Your task to perform on an android device: turn off javascript in the chrome app Image 0: 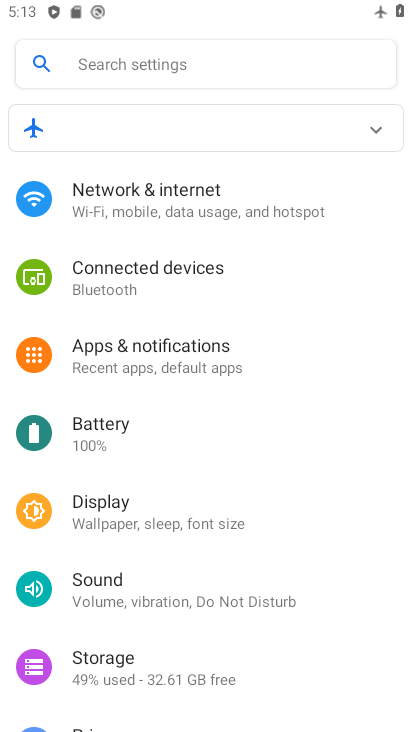
Step 0: press home button
Your task to perform on an android device: turn off javascript in the chrome app Image 1: 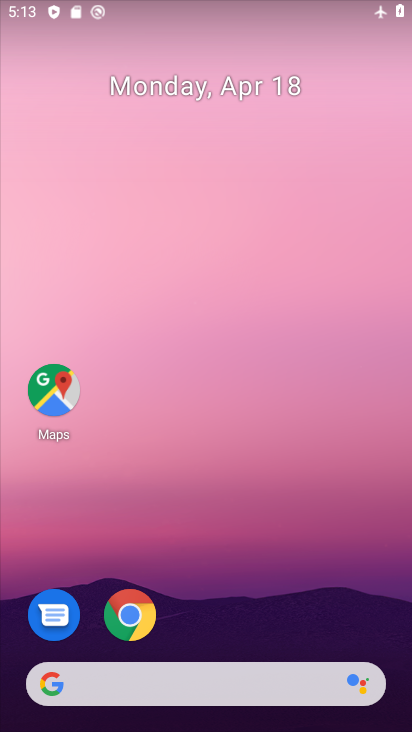
Step 1: click (124, 622)
Your task to perform on an android device: turn off javascript in the chrome app Image 2: 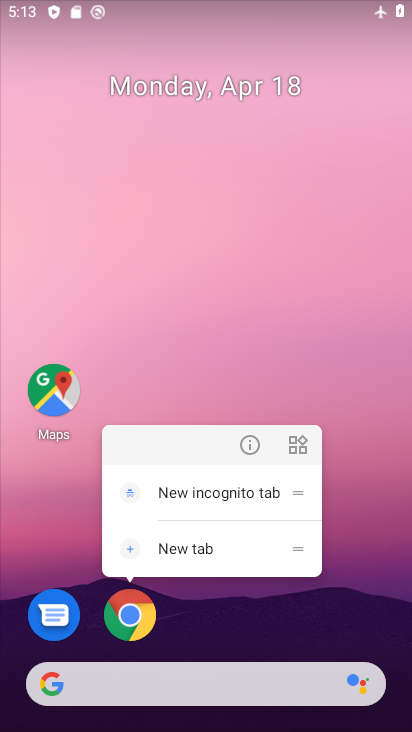
Step 2: click (391, 581)
Your task to perform on an android device: turn off javascript in the chrome app Image 3: 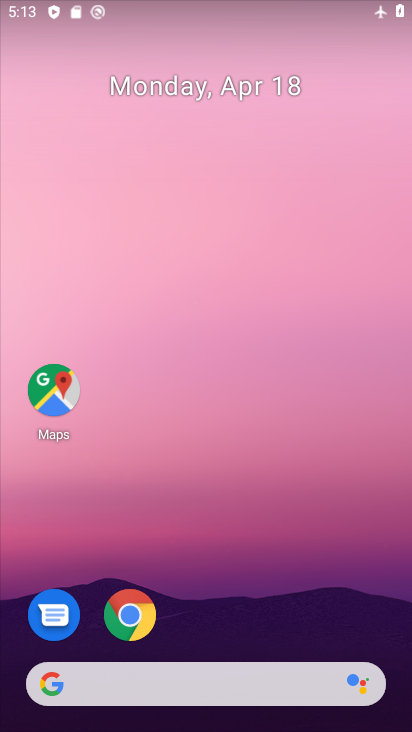
Step 3: drag from (196, 613) to (158, 210)
Your task to perform on an android device: turn off javascript in the chrome app Image 4: 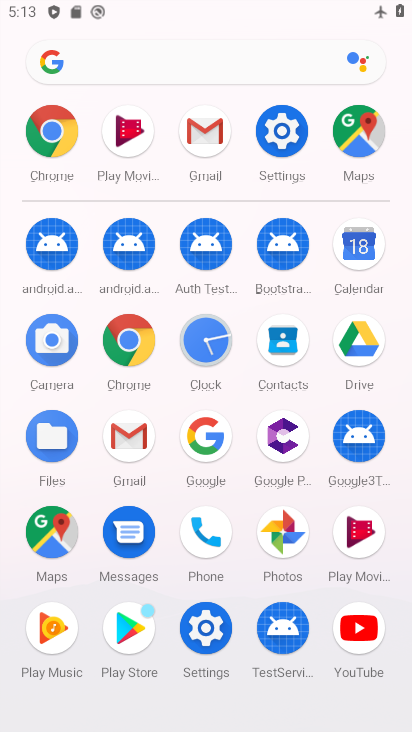
Step 4: click (24, 127)
Your task to perform on an android device: turn off javascript in the chrome app Image 5: 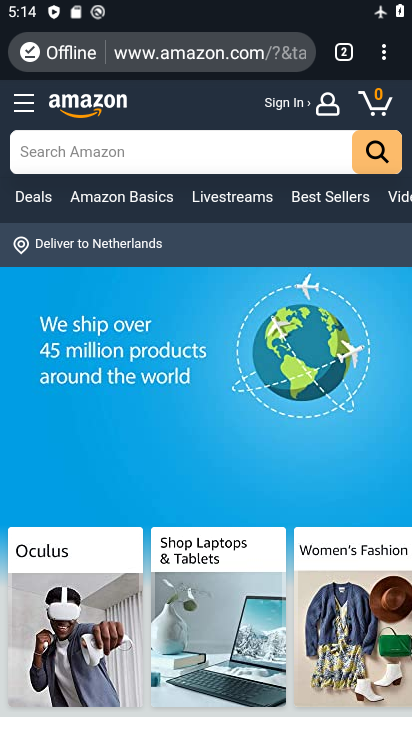
Step 5: drag from (380, 48) to (234, 637)
Your task to perform on an android device: turn off javascript in the chrome app Image 6: 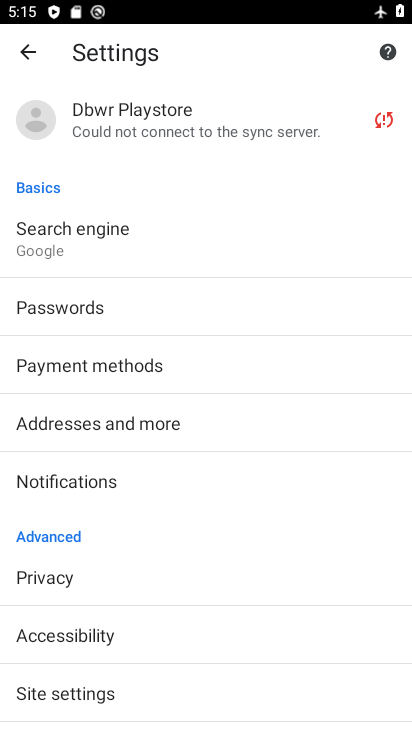
Step 6: click (39, 700)
Your task to perform on an android device: turn off javascript in the chrome app Image 7: 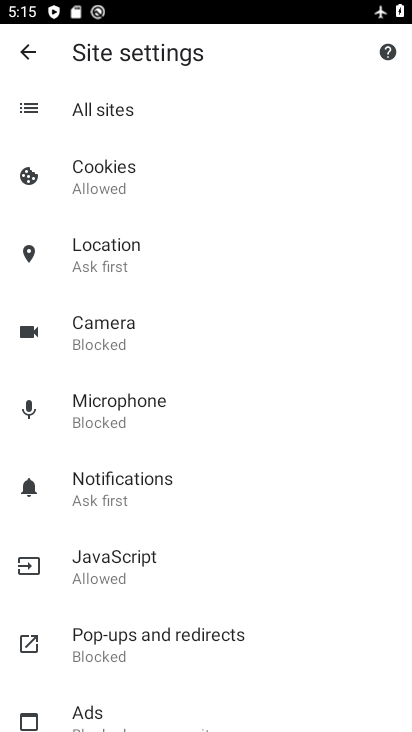
Step 7: click (165, 561)
Your task to perform on an android device: turn off javascript in the chrome app Image 8: 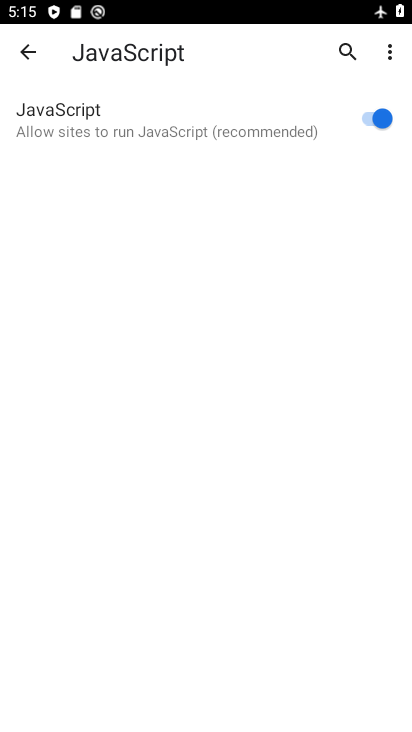
Step 8: click (390, 108)
Your task to perform on an android device: turn off javascript in the chrome app Image 9: 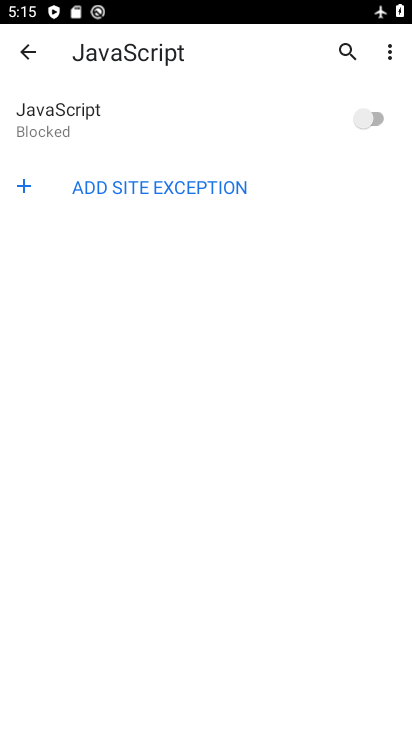
Step 9: task complete